Your task to perform on an android device: turn smart compose on in the gmail app Image 0: 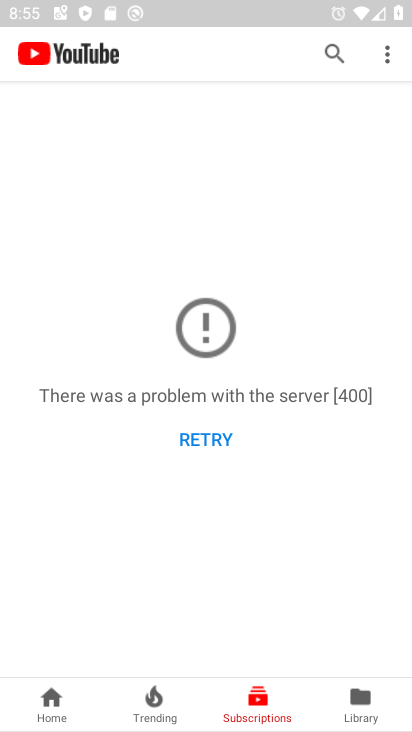
Step 0: click (400, 653)
Your task to perform on an android device: turn smart compose on in the gmail app Image 1: 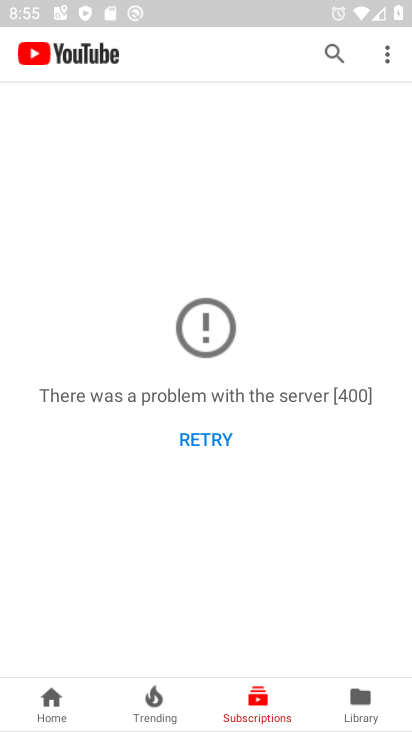
Step 1: drag from (391, 588) to (382, 358)
Your task to perform on an android device: turn smart compose on in the gmail app Image 2: 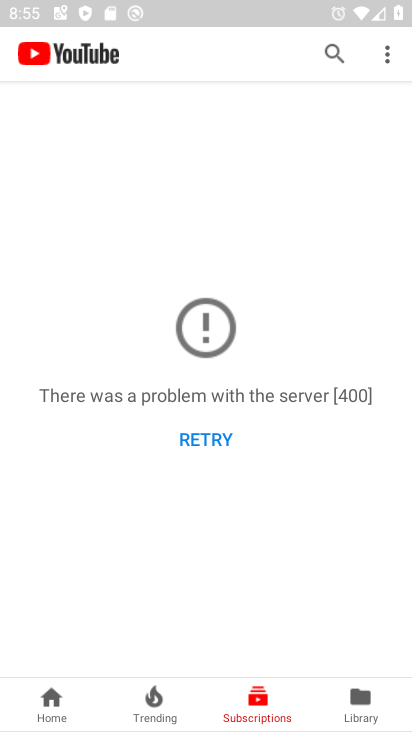
Step 2: press home button
Your task to perform on an android device: turn smart compose on in the gmail app Image 3: 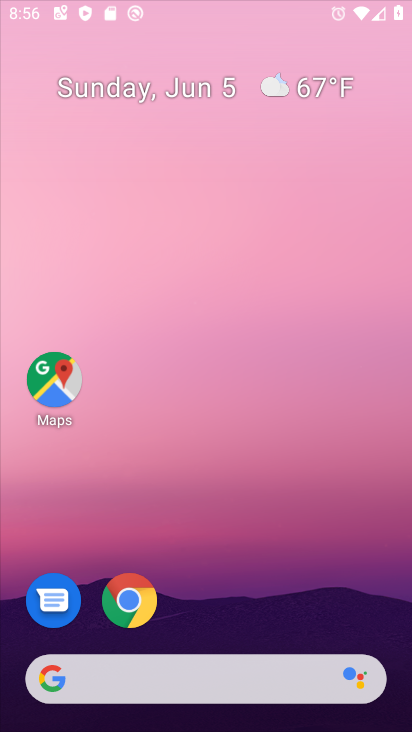
Step 3: drag from (377, 672) to (322, 83)
Your task to perform on an android device: turn smart compose on in the gmail app Image 4: 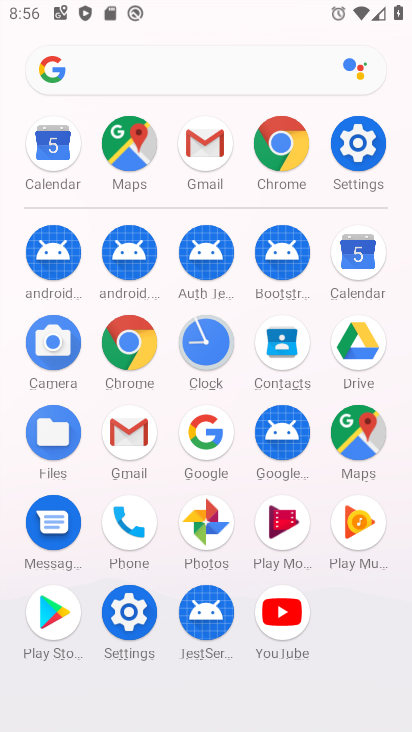
Step 4: click (117, 426)
Your task to perform on an android device: turn smart compose on in the gmail app Image 5: 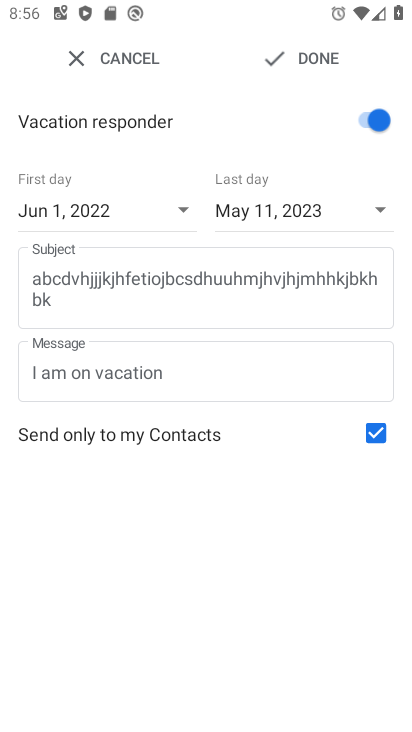
Step 5: task complete